Your task to perform on an android device: check android version Image 0: 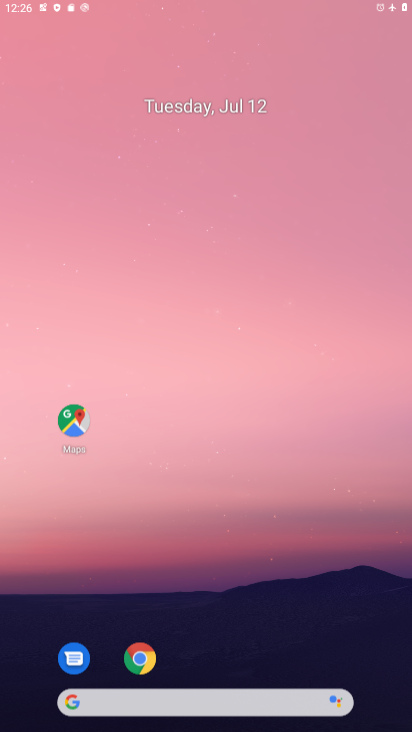
Step 0: click (244, 48)
Your task to perform on an android device: check android version Image 1: 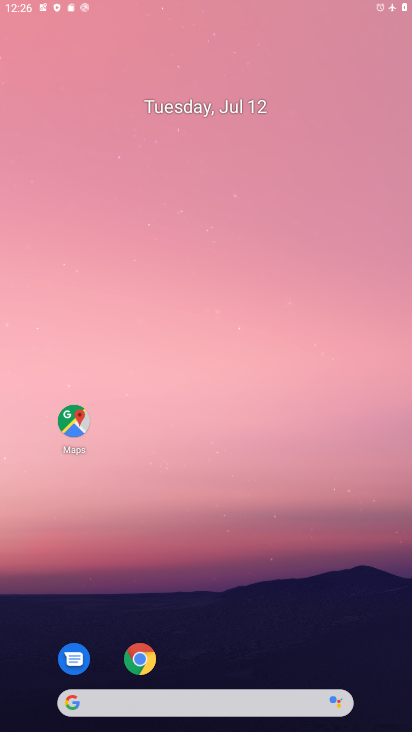
Step 1: drag from (204, 613) to (254, 147)
Your task to perform on an android device: check android version Image 2: 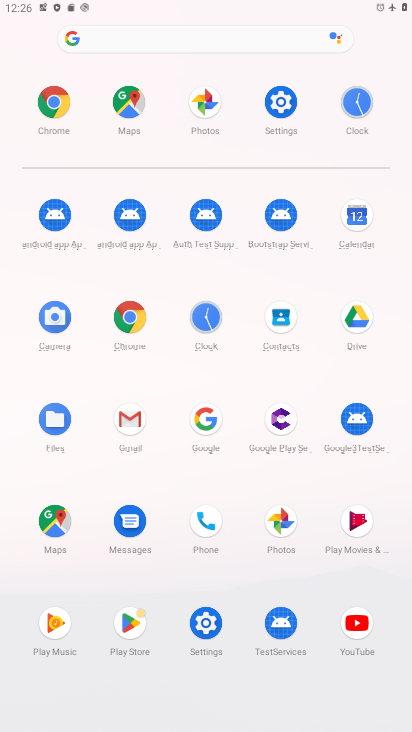
Step 2: click (279, 107)
Your task to perform on an android device: check android version Image 3: 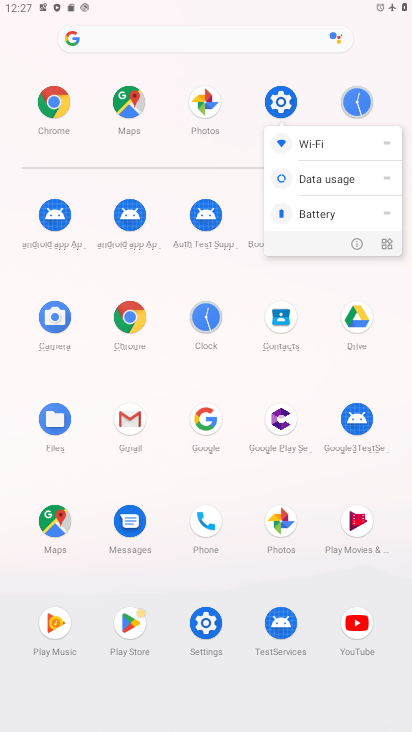
Step 3: click (356, 244)
Your task to perform on an android device: check android version Image 4: 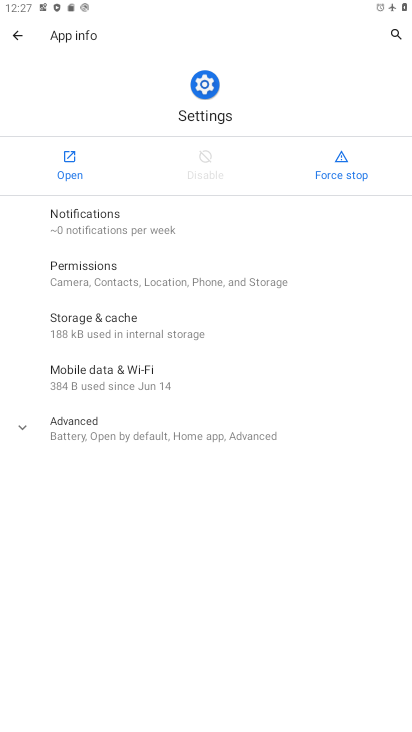
Step 4: click (68, 157)
Your task to perform on an android device: check android version Image 5: 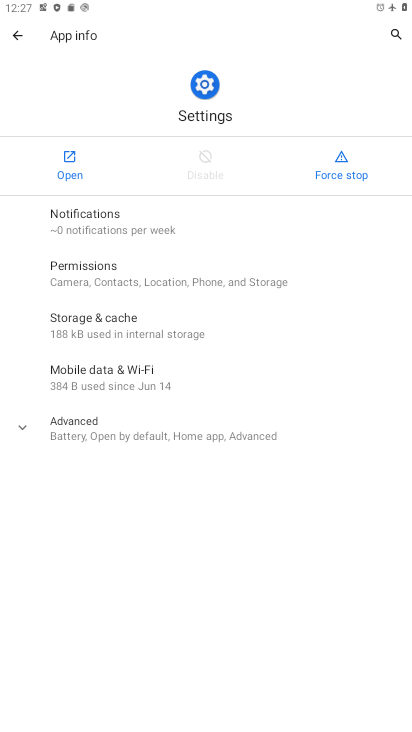
Step 5: click (68, 157)
Your task to perform on an android device: check android version Image 6: 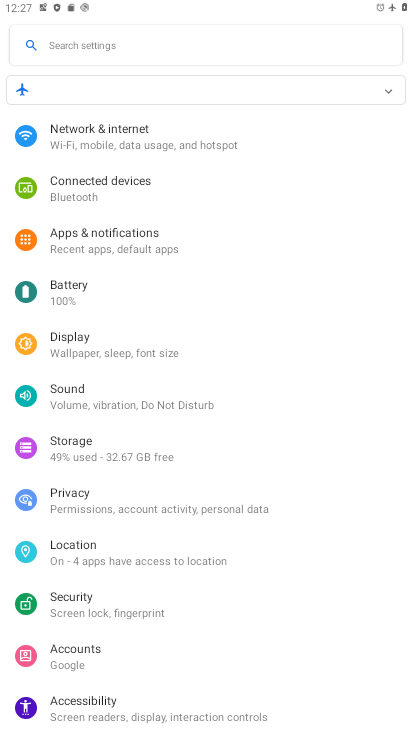
Step 6: drag from (200, 577) to (241, 68)
Your task to perform on an android device: check android version Image 7: 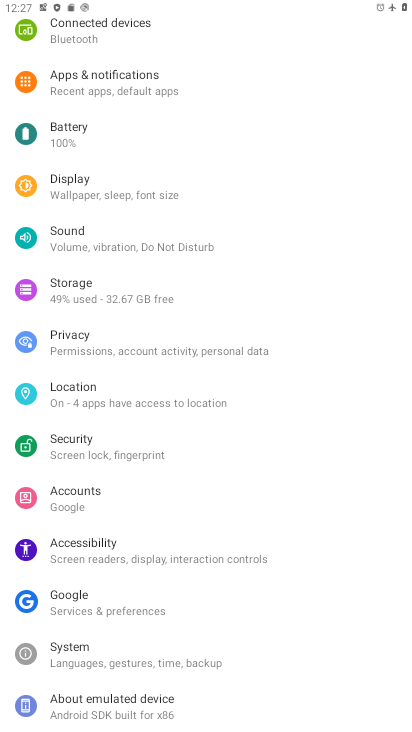
Step 7: click (147, 707)
Your task to perform on an android device: check android version Image 8: 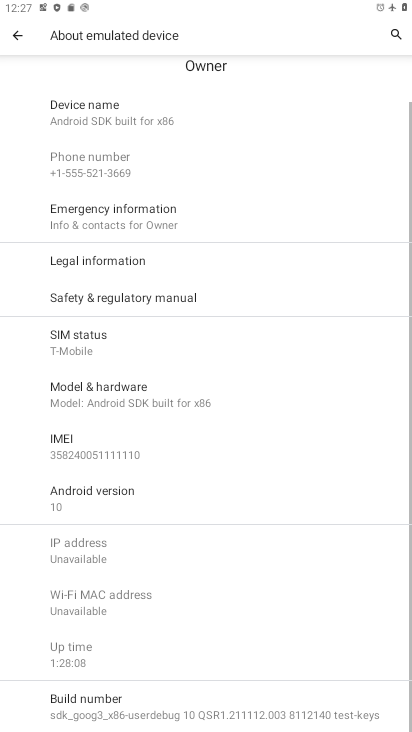
Step 8: drag from (213, 651) to (252, 237)
Your task to perform on an android device: check android version Image 9: 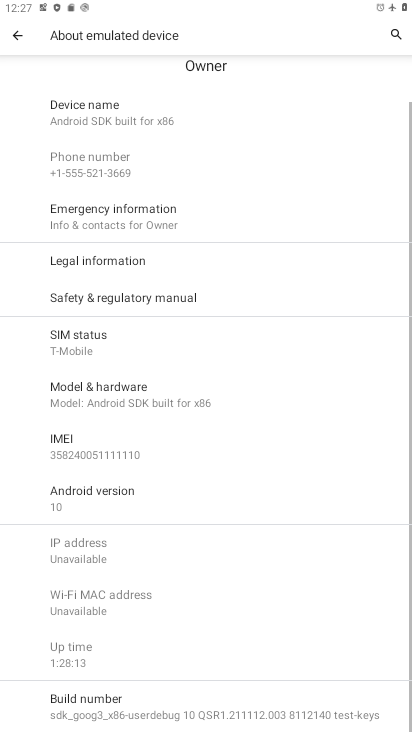
Step 9: drag from (131, 560) to (231, 256)
Your task to perform on an android device: check android version Image 10: 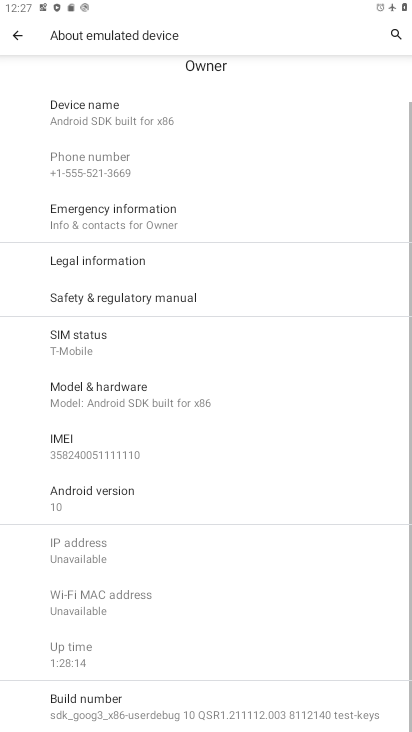
Step 10: click (142, 506)
Your task to perform on an android device: check android version Image 11: 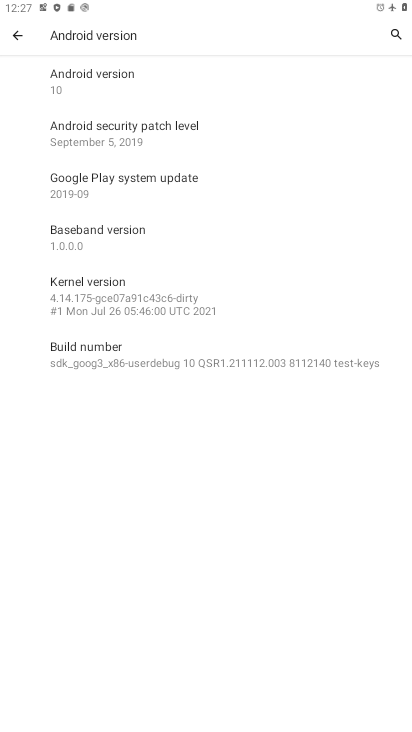
Step 11: drag from (143, 502) to (244, 166)
Your task to perform on an android device: check android version Image 12: 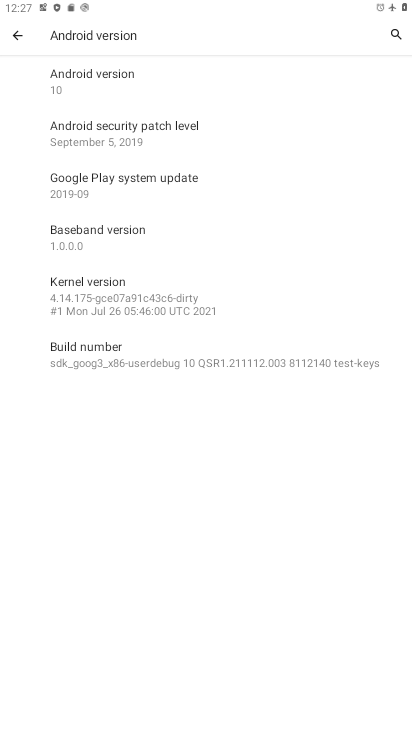
Step 12: click (178, 87)
Your task to perform on an android device: check android version Image 13: 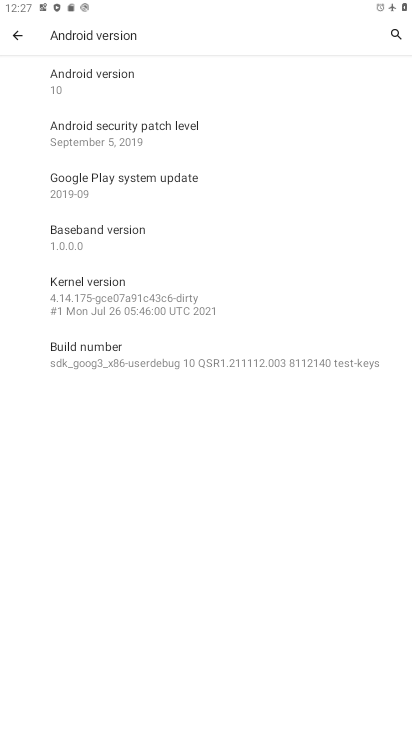
Step 13: task complete